Your task to perform on an android device: turn off airplane mode Image 0: 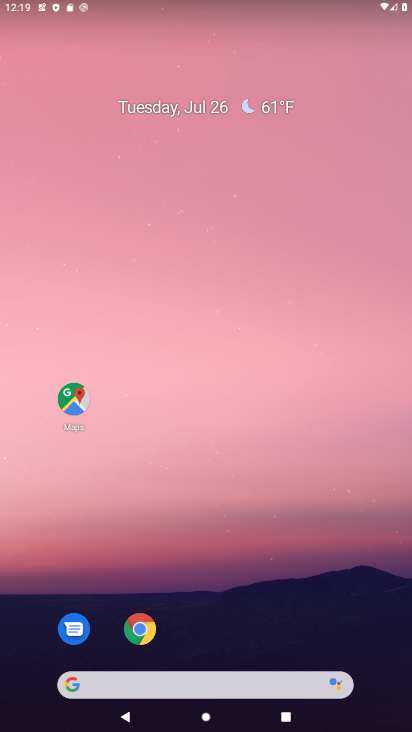
Step 0: drag from (210, 639) to (188, 206)
Your task to perform on an android device: turn off airplane mode Image 1: 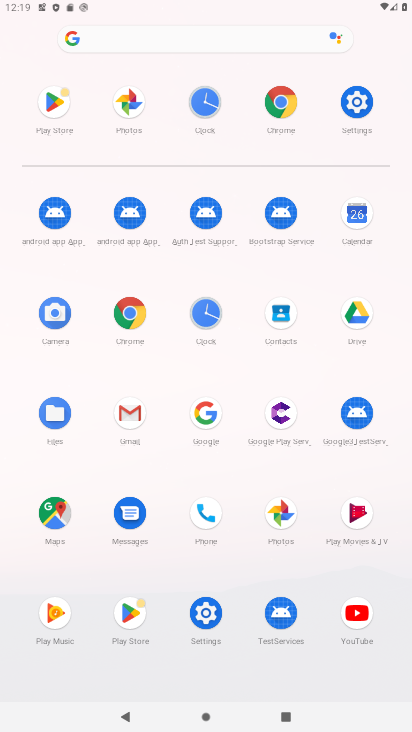
Step 1: click (373, 116)
Your task to perform on an android device: turn off airplane mode Image 2: 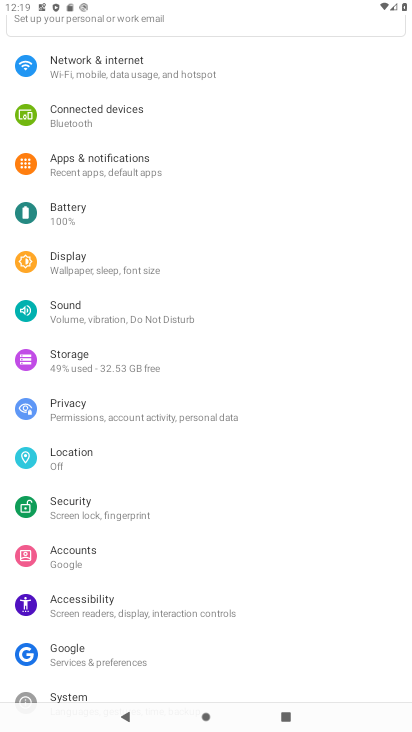
Step 2: click (155, 80)
Your task to perform on an android device: turn off airplane mode Image 3: 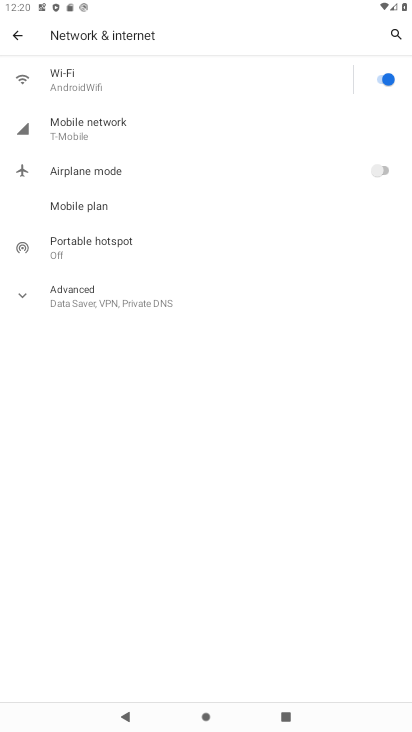
Step 3: task complete